Your task to perform on an android device: set the timer Image 0: 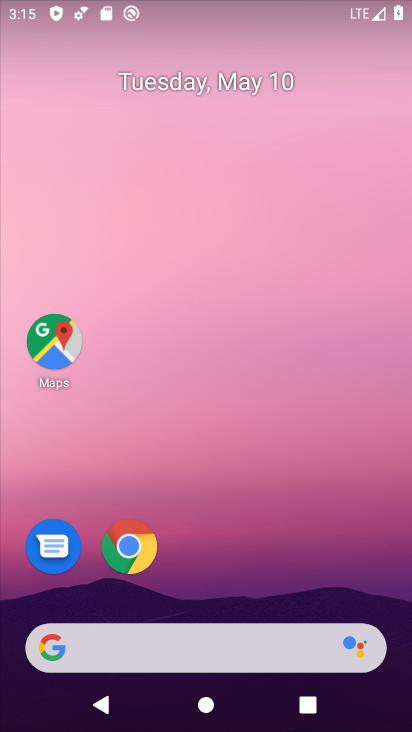
Step 0: drag from (195, 592) to (254, 20)
Your task to perform on an android device: set the timer Image 1: 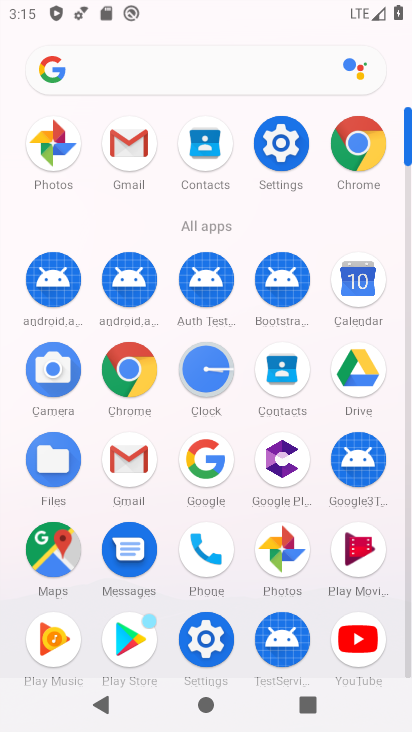
Step 1: click (210, 389)
Your task to perform on an android device: set the timer Image 2: 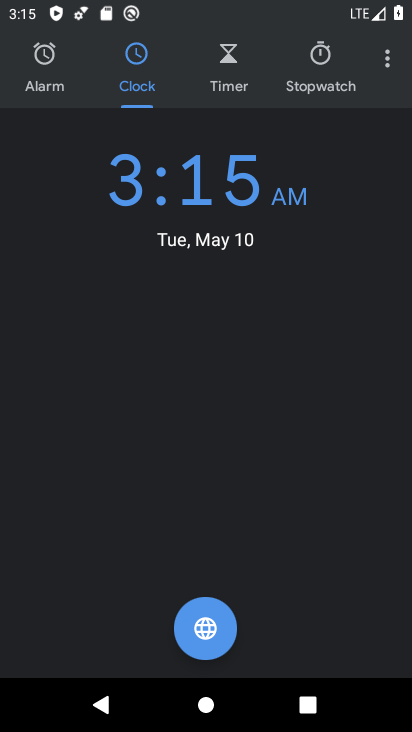
Step 2: click (239, 70)
Your task to perform on an android device: set the timer Image 3: 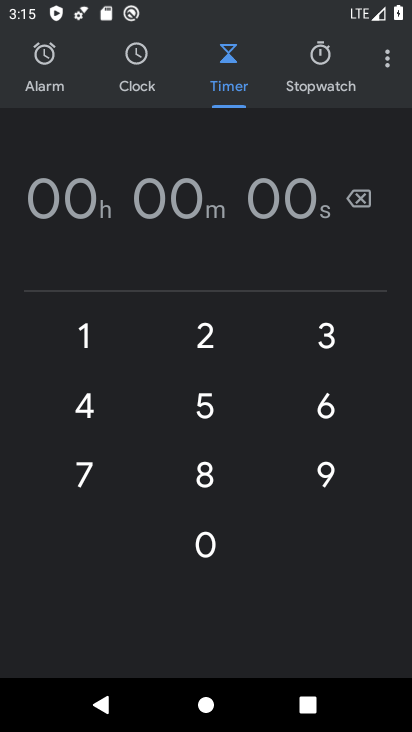
Step 3: click (100, 479)
Your task to perform on an android device: set the timer Image 4: 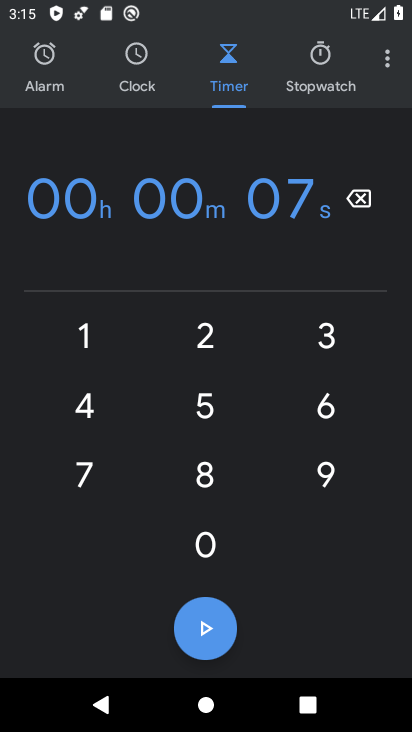
Step 4: click (214, 400)
Your task to perform on an android device: set the timer Image 5: 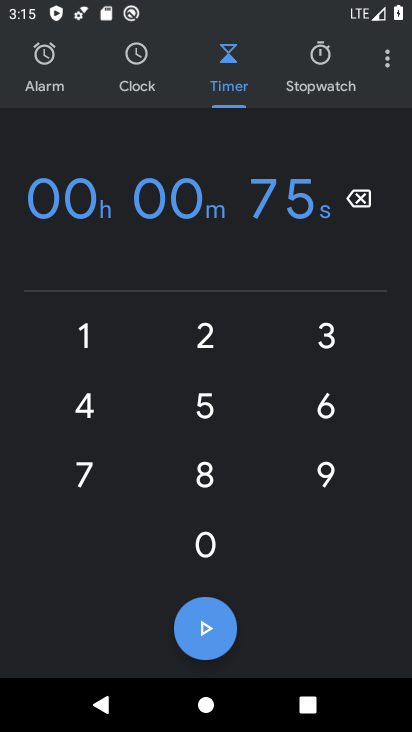
Step 5: click (332, 477)
Your task to perform on an android device: set the timer Image 6: 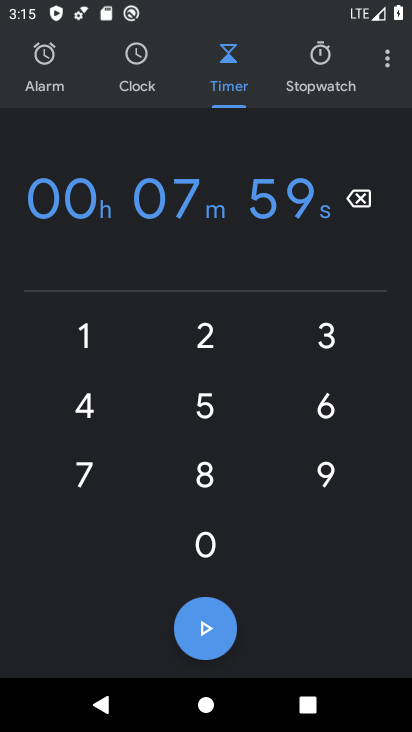
Step 6: click (192, 605)
Your task to perform on an android device: set the timer Image 7: 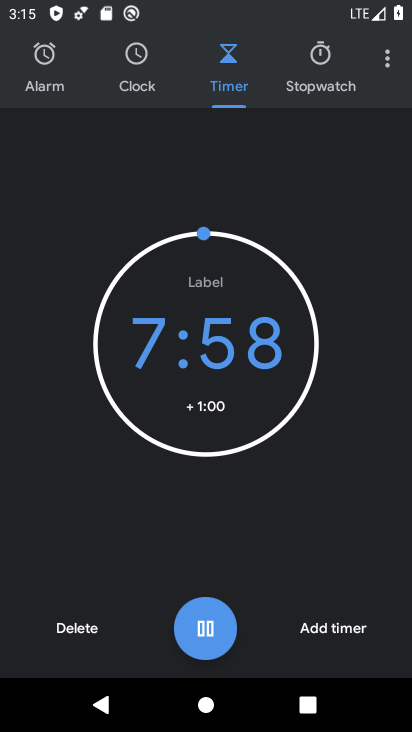
Step 7: task complete